Your task to perform on an android device: Open the stopwatch Image 0: 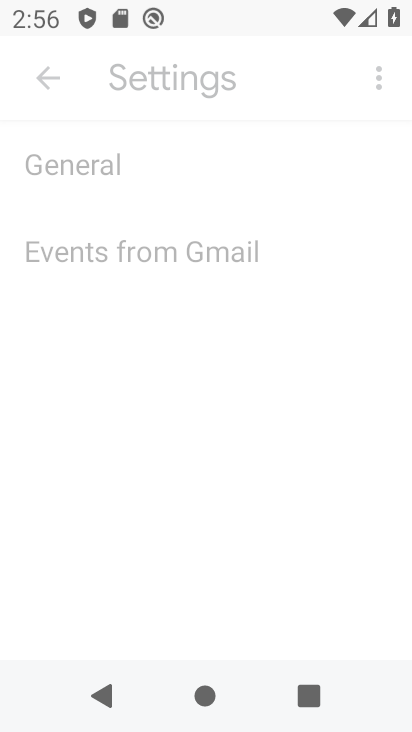
Step 0: press home button
Your task to perform on an android device: Open the stopwatch Image 1: 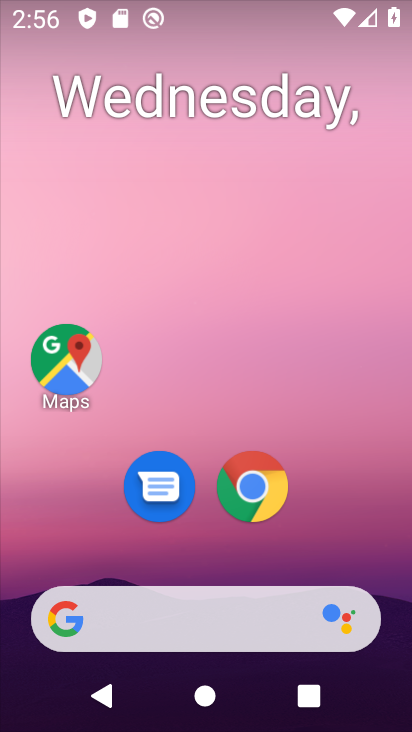
Step 1: drag from (312, 539) to (289, 91)
Your task to perform on an android device: Open the stopwatch Image 2: 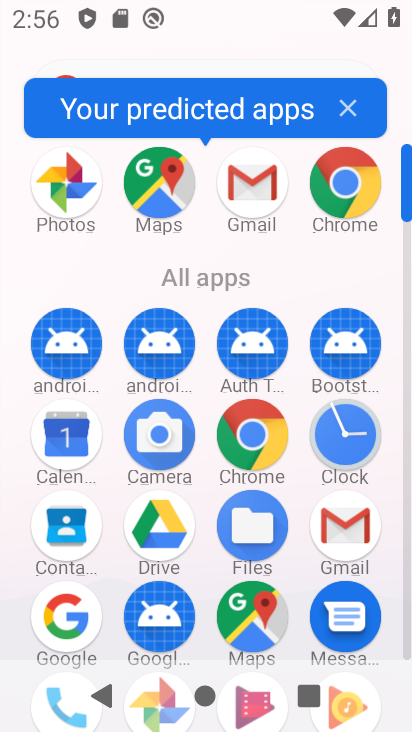
Step 2: click (340, 435)
Your task to perform on an android device: Open the stopwatch Image 3: 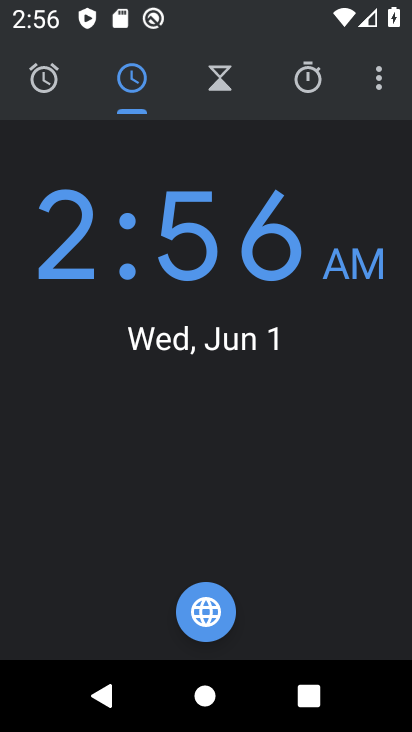
Step 3: click (309, 82)
Your task to perform on an android device: Open the stopwatch Image 4: 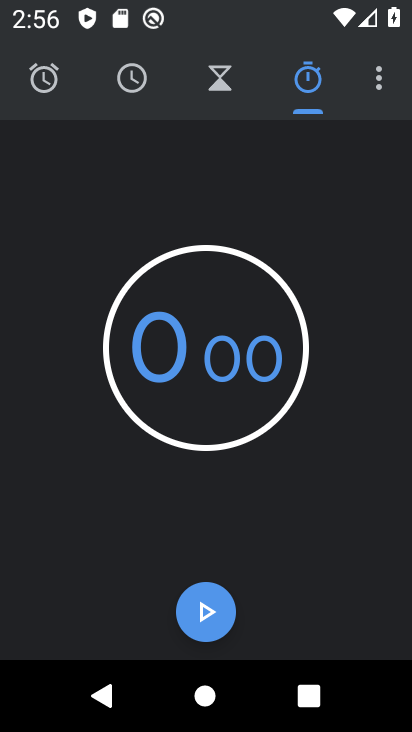
Step 4: click (207, 614)
Your task to perform on an android device: Open the stopwatch Image 5: 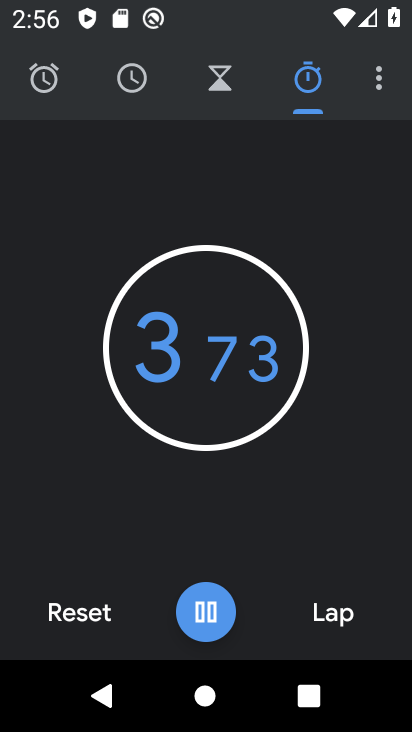
Step 5: task complete